Your task to perform on an android device: turn on bluetooth scan Image 0: 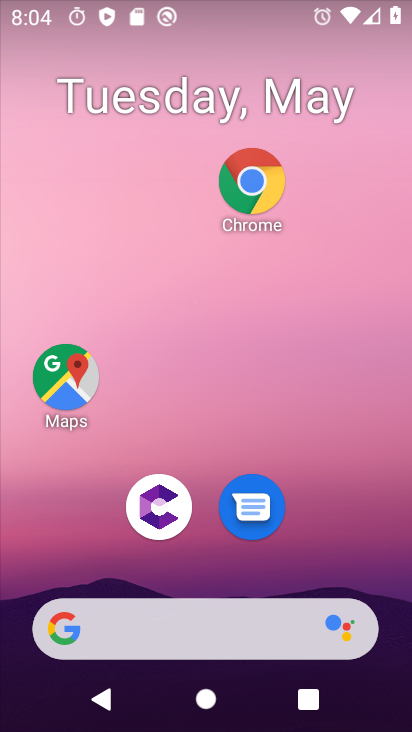
Step 0: drag from (192, 588) to (269, 45)
Your task to perform on an android device: turn on bluetooth scan Image 1: 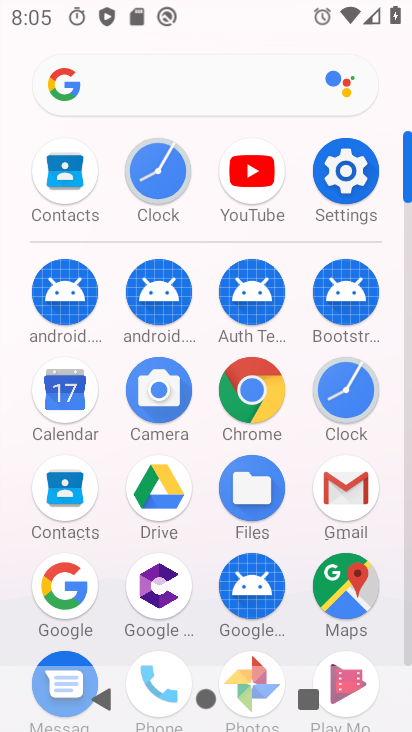
Step 1: click (342, 176)
Your task to perform on an android device: turn on bluetooth scan Image 2: 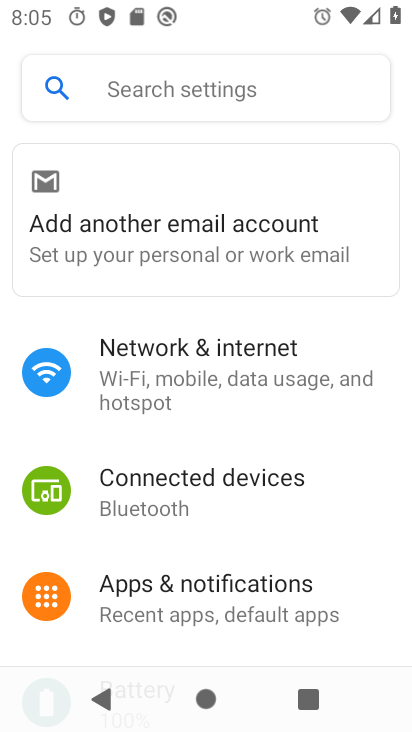
Step 2: drag from (259, 595) to (250, 352)
Your task to perform on an android device: turn on bluetooth scan Image 3: 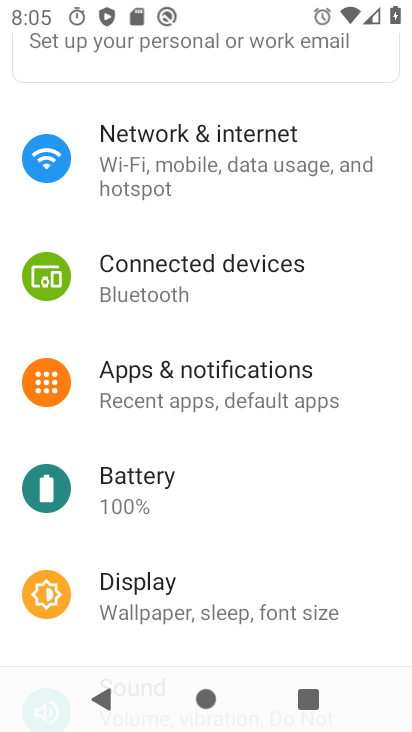
Step 3: drag from (207, 579) to (173, 369)
Your task to perform on an android device: turn on bluetooth scan Image 4: 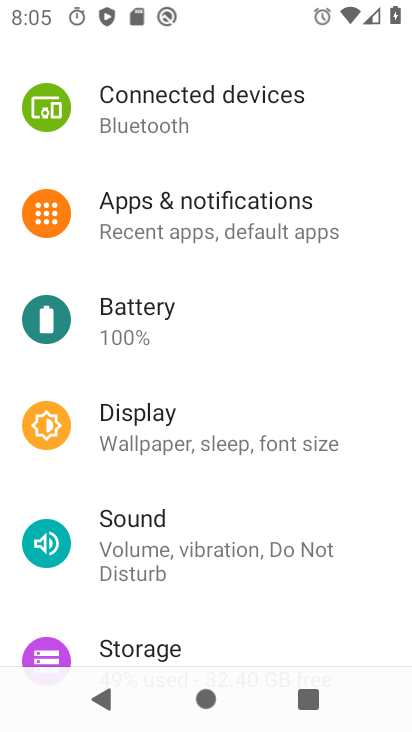
Step 4: drag from (203, 526) to (158, 385)
Your task to perform on an android device: turn on bluetooth scan Image 5: 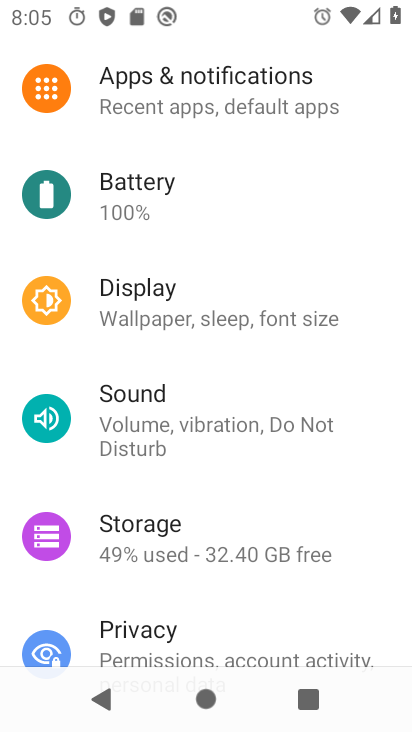
Step 5: drag from (213, 558) to (208, 408)
Your task to perform on an android device: turn on bluetooth scan Image 6: 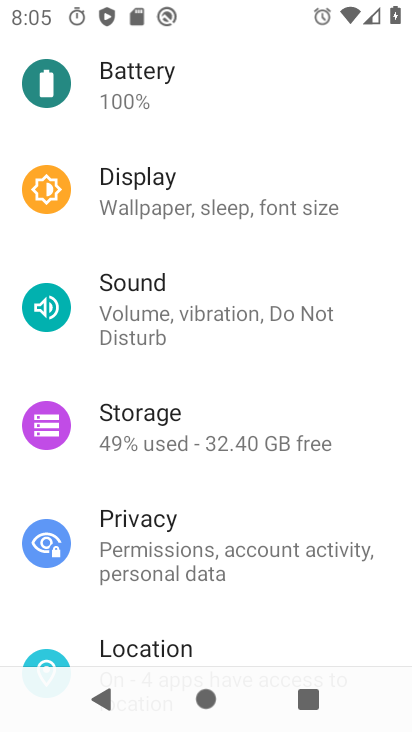
Step 6: drag from (231, 489) to (222, 372)
Your task to perform on an android device: turn on bluetooth scan Image 7: 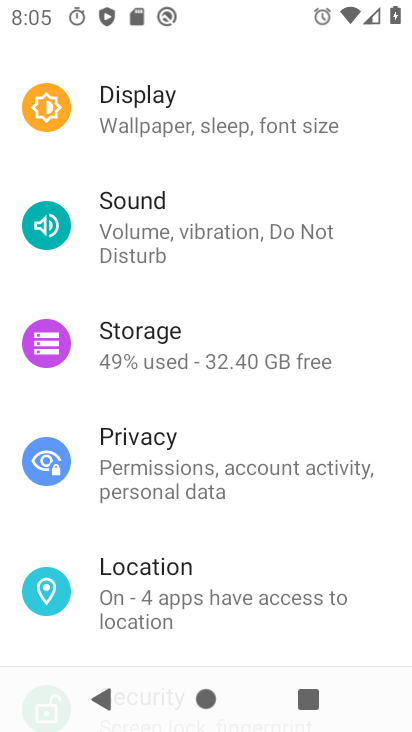
Step 7: click (233, 574)
Your task to perform on an android device: turn on bluetooth scan Image 8: 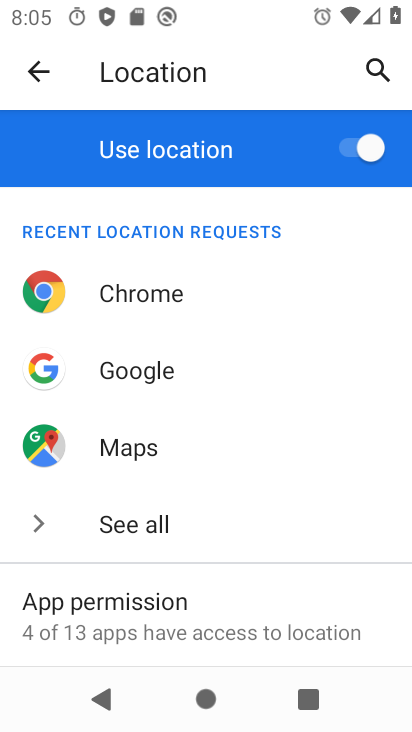
Step 8: drag from (209, 595) to (220, 418)
Your task to perform on an android device: turn on bluetooth scan Image 9: 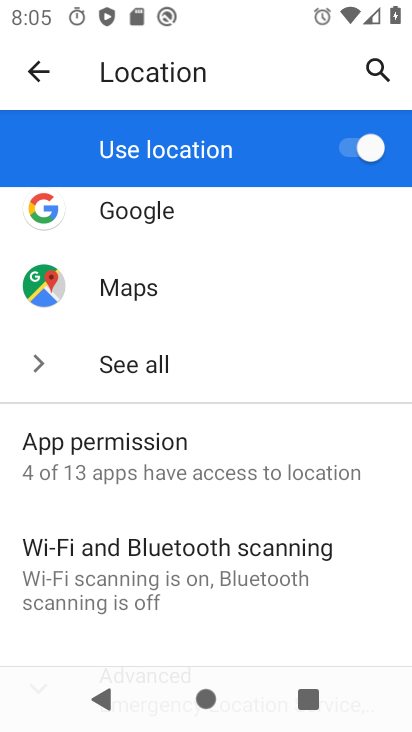
Step 9: click (244, 569)
Your task to perform on an android device: turn on bluetooth scan Image 10: 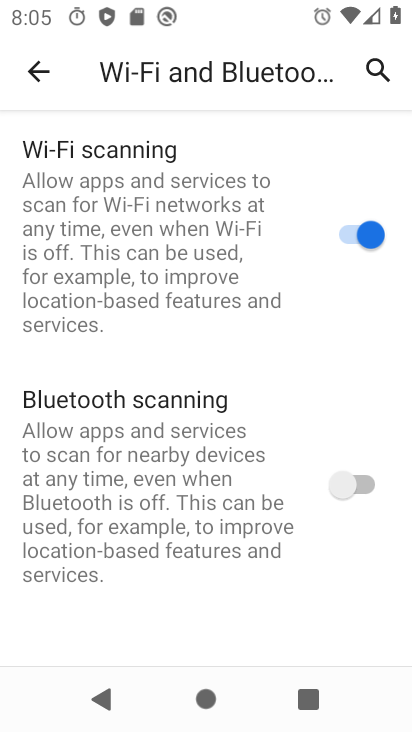
Step 10: click (326, 489)
Your task to perform on an android device: turn on bluetooth scan Image 11: 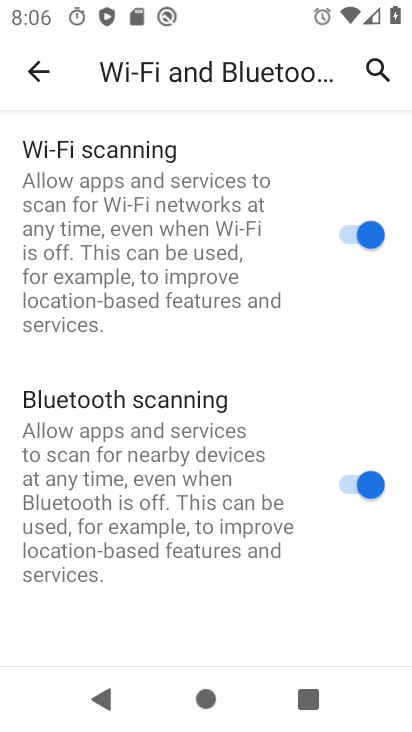
Step 11: task complete